Your task to perform on an android device: find snoozed emails in the gmail app Image 0: 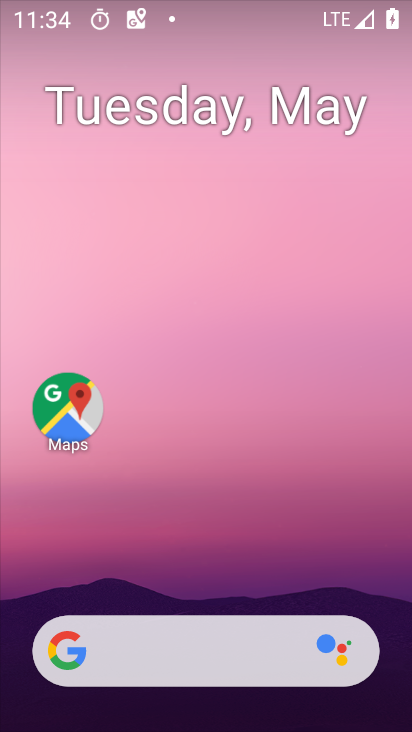
Step 0: drag from (230, 650) to (267, 56)
Your task to perform on an android device: find snoozed emails in the gmail app Image 1: 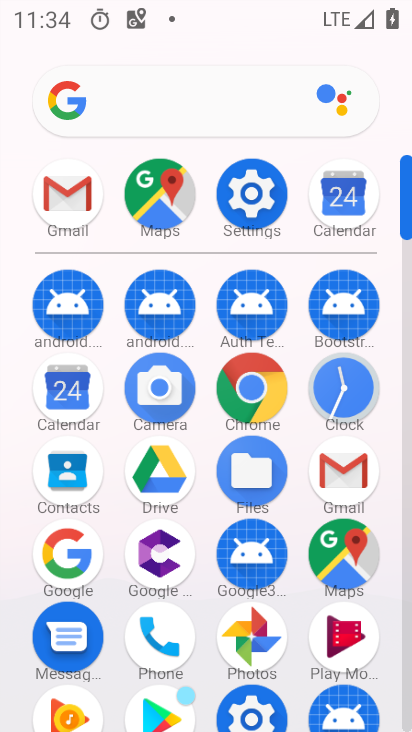
Step 1: click (69, 190)
Your task to perform on an android device: find snoozed emails in the gmail app Image 2: 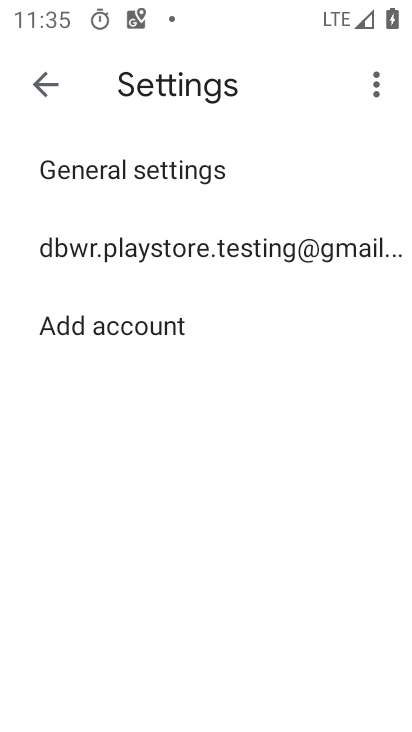
Step 2: click (53, 79)
Your task to perform on an android device: find snoozed emails in the gmail app Image 3: 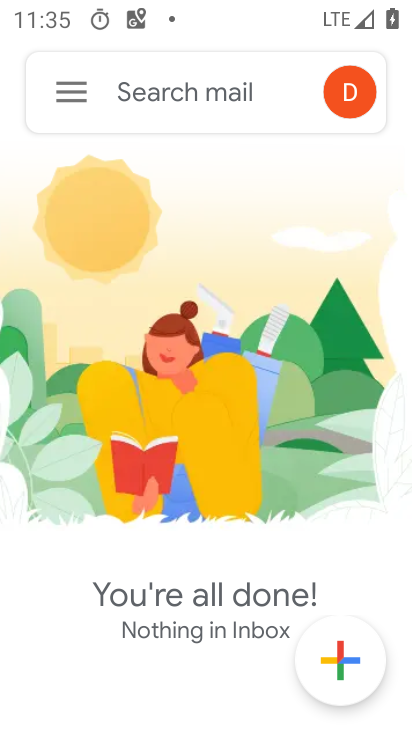
Step 3: click (61, 90)
Your task to perform on an android device: find snoozed emails in the gmail app Image 4: 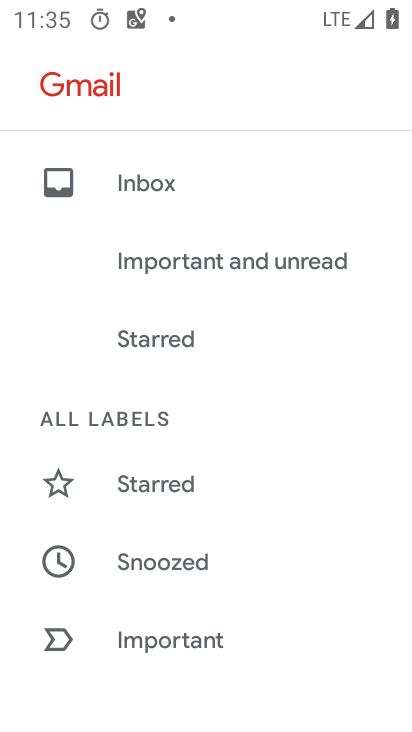
Step 4: click (162, 571)
Your task to perform on an android device: find snoozed emails in the gmail app Image 5: 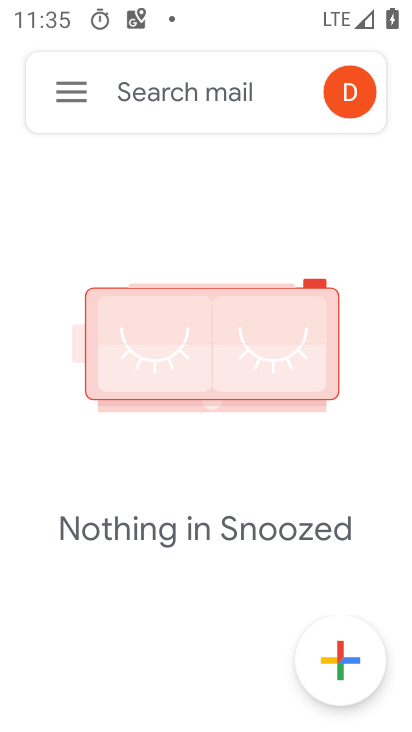
Step 5: task complete